Your task to perform on an android device: Go to display settings Image 0: 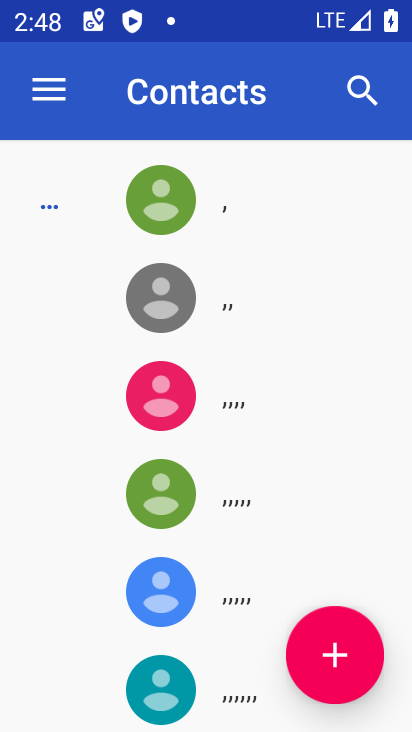
Step 0: press home button
Your task to perform on an android device: Go to display settings Image 1: 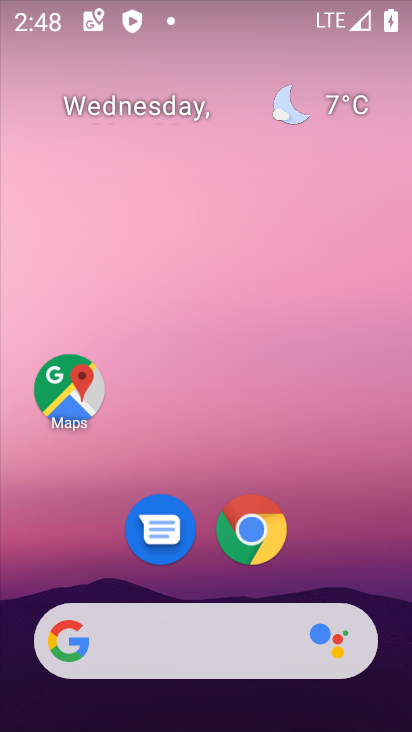
Step 1: drag from (354, 498) to (326, 109)
Your task to perform on an android device: Go to display settings Image 2: 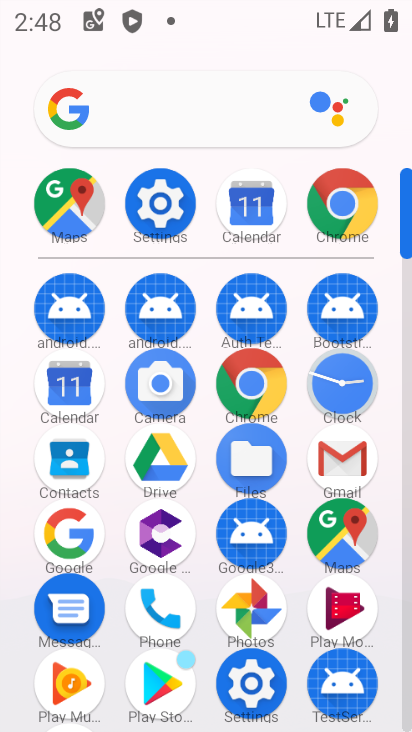
Step 2: click (166, 195)
Your task to perform on an android device: Go to display settings Image 3: 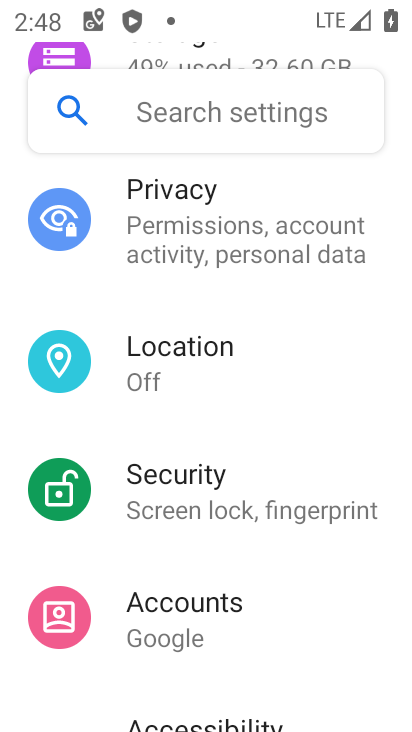
Step 3: drag from (202, 572) to (210, 230)
Your task to perform on an android device: Go to display settings Image 4: 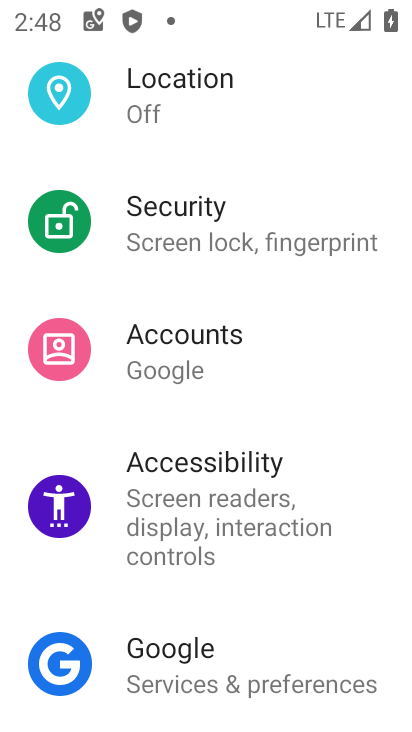
Step 4: drag from (208, 539) to (252, 182)
Your task to perform on an android device: Go to display settings Image 5: 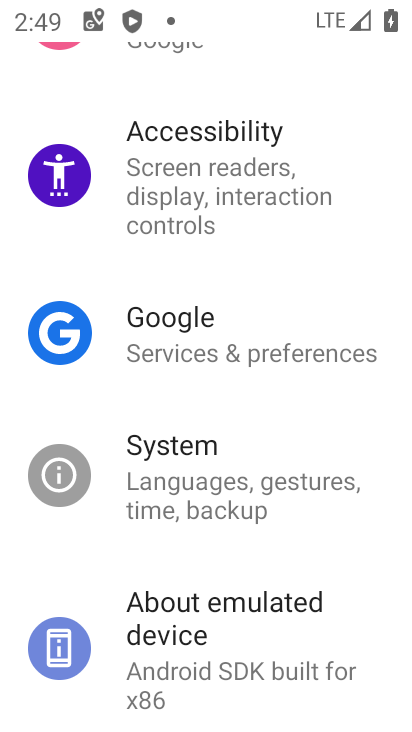
Step 5: drag from (259, 513) to (261, 205)
Your task to perform on an android device: Go to display settings Image 6: 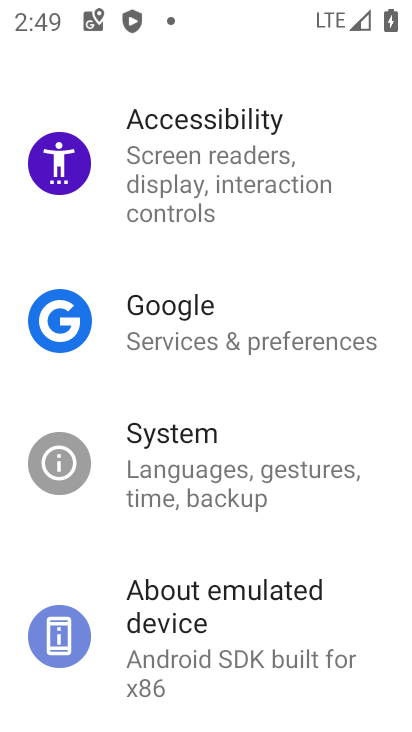
Step 6: drag from (196, 174) to (250, 616)
Your task to perform on an android device: Go to display settings Image 7: 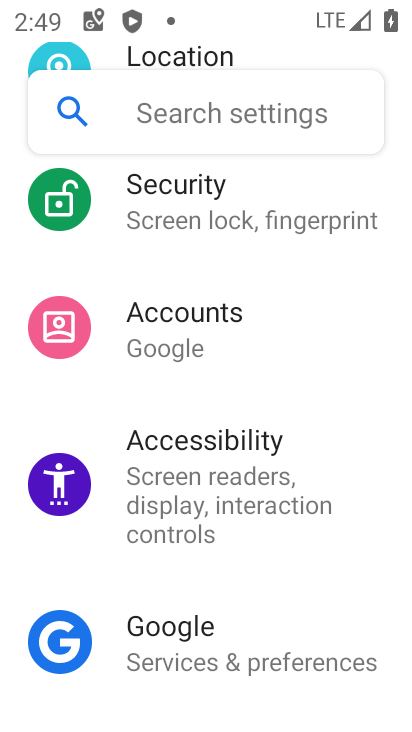
Step 7: drag from (284, 167) to (334, 518)
Your task to perform on an android device: Go to display settings Image 8: 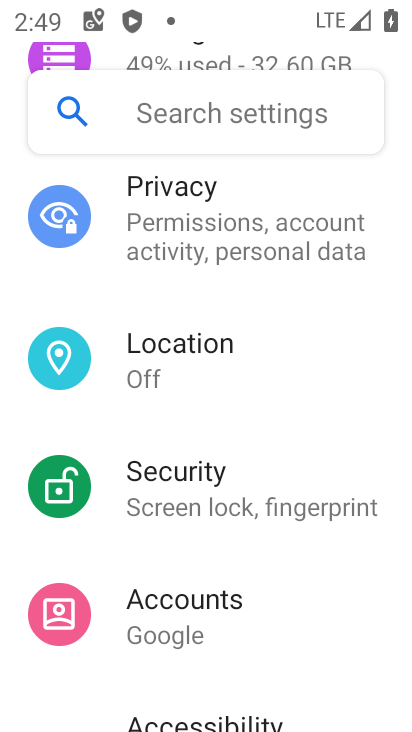
Step 8: drag from (265, 210) to (334, 522)
Your task to perform on an android device: Go to display settings Image 9: 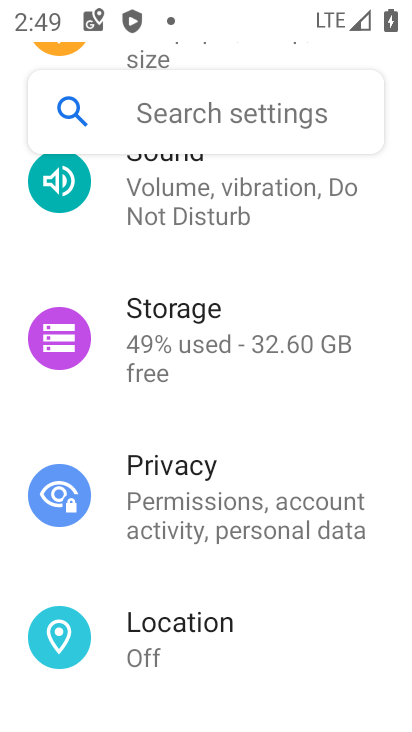
Step 9: drag from (275, 264) to (300, 547)
Your task to perform on an android device: Go to display settings Image 10: 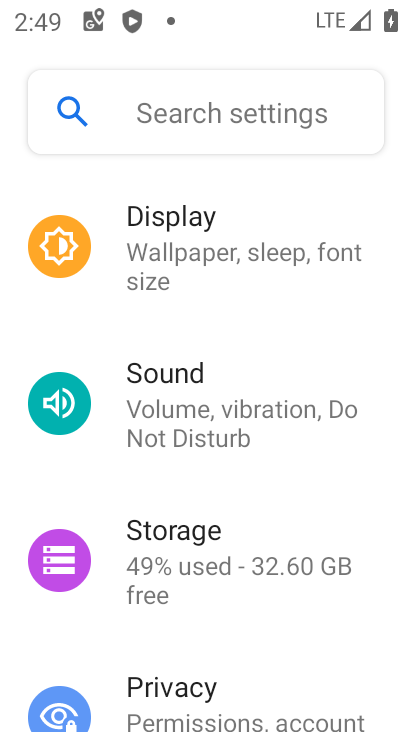
Step 10: drag from (281, 235) to (284, 552)
Your task to perform on an android device: Go to display settings Image 11: 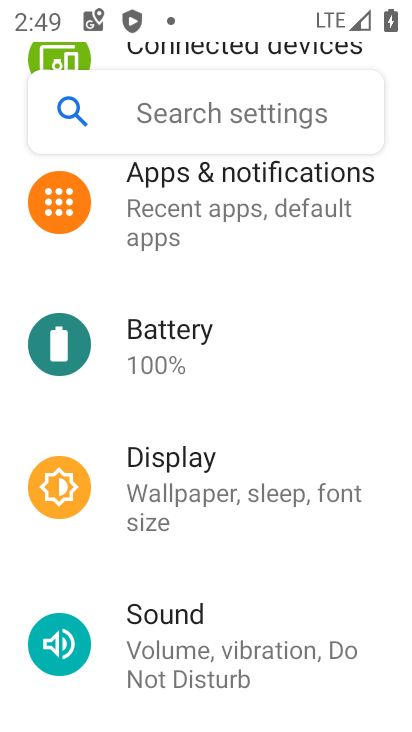
Step 11: drag from (225, 249) to (269, 539)
Your task to perform on an android device: Go to display settings Image 12: 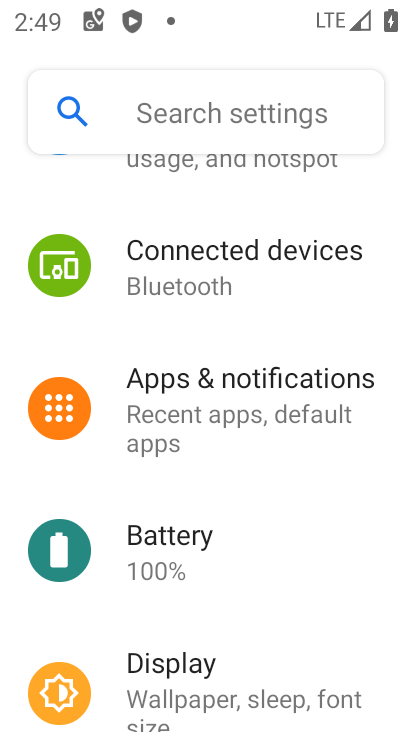
Step 12: drag from (217, 259) to (284, 587)
Your task to perform on an android device: Go to display settings Image 13: 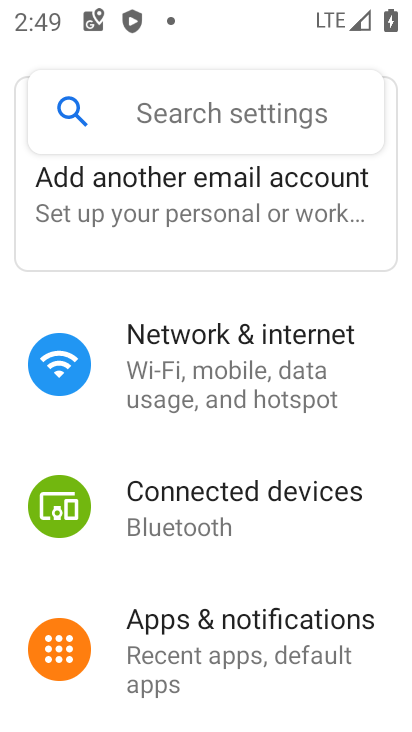
Step 13: drag from (226, 516) to (228, 230)
Your task to perform on an android device: Go to display settings Image 14: 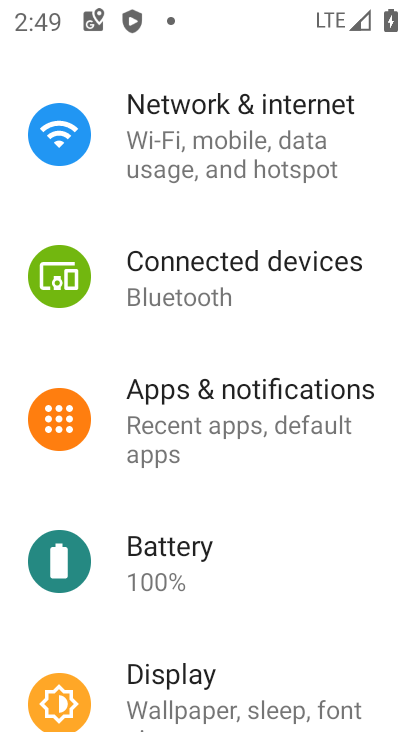
Step 14: click (179, 683)
Your task to perform on an android device: Go to display settings Image 15: 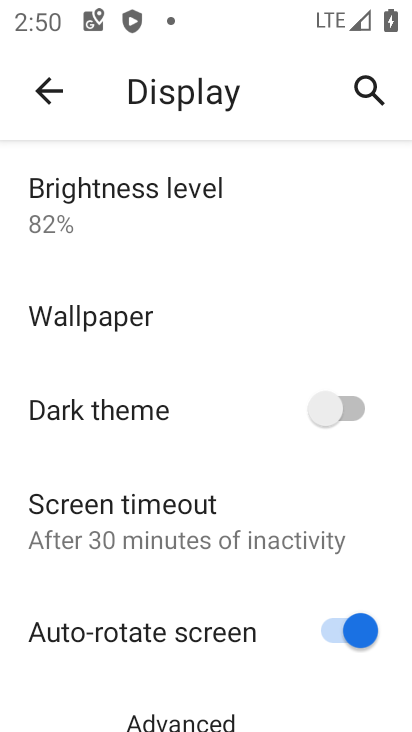
Step 15: task complete